Your task to perform on an android device: add a contact in the contacts app Image 0: 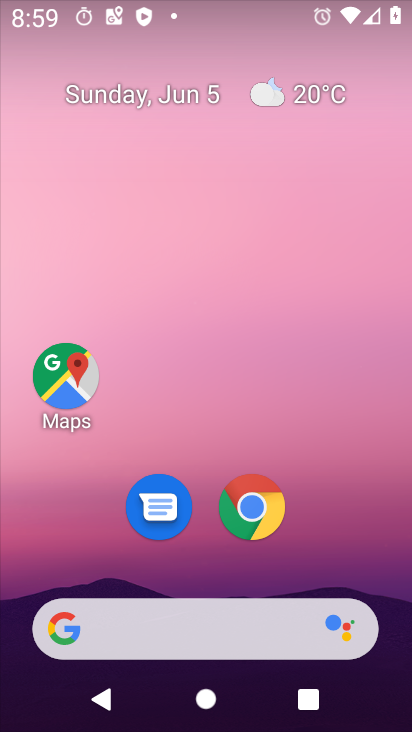
Step 0: drag from (383, 528) to (250, 12)
Your task to perform on an android device: add a contact in the contacts app Image 1: 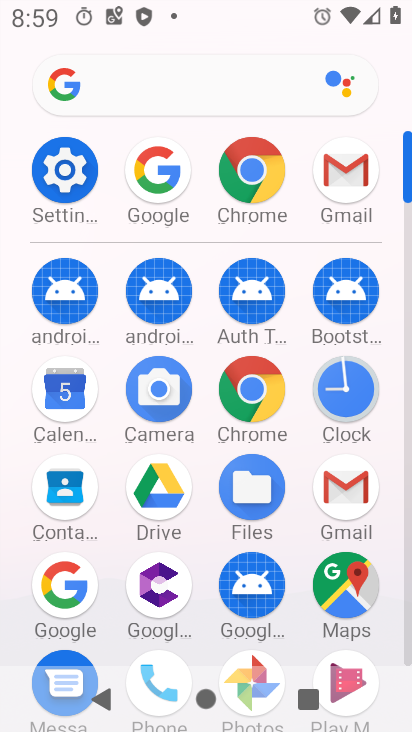
Step 1: click (61, 484)
Your task to perform on an android device: add a contact in the contacts app Image 2: 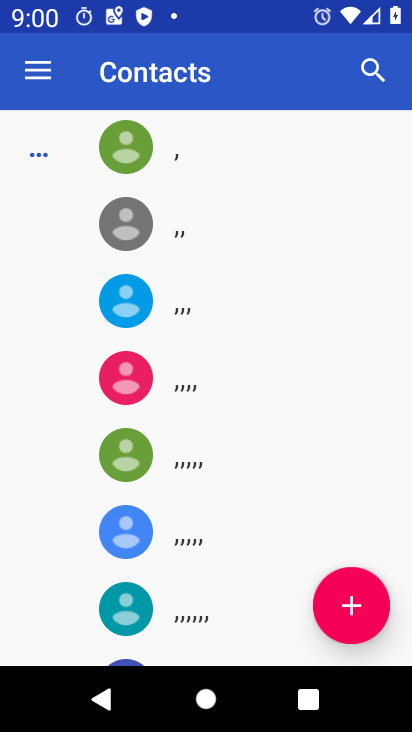
Step 2: click (342, 606)
Your task to perform on an android device: add a contact in the contacts app Image 3: 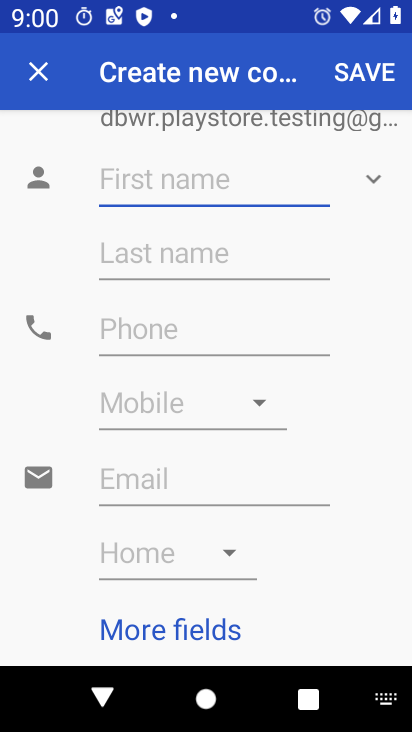
Step 3: type "sdvb"
Your task to perform on an android device: add a contact in the contacts app Image 4: 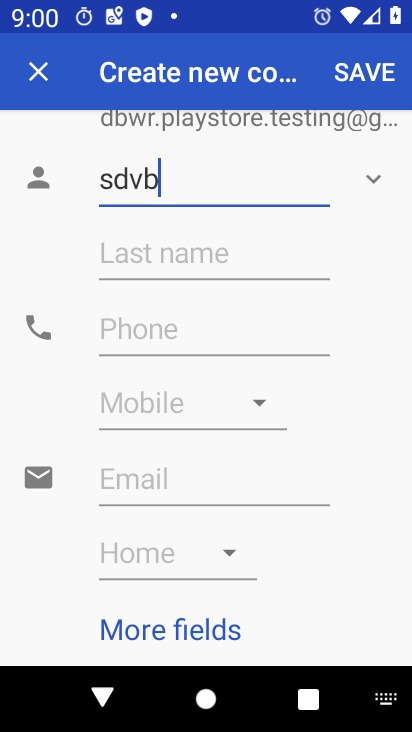
Step 4: type ""
Your task to perform on an android device: add a contact in the contacts app Image 5: 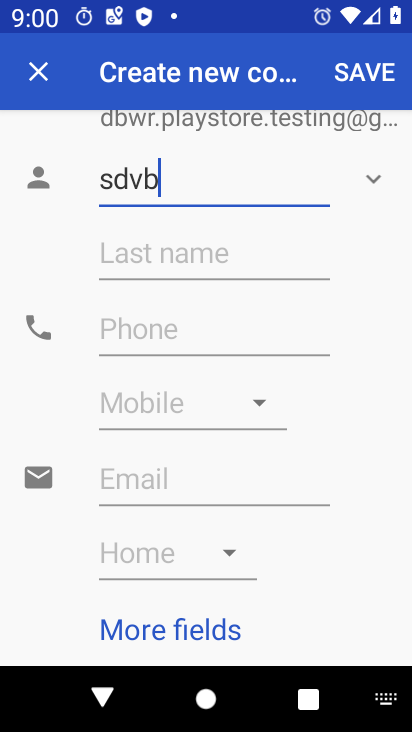
Step 5: click (223, 335)
Your task to perform on an android device: add a contact in the contacts app Image 6: 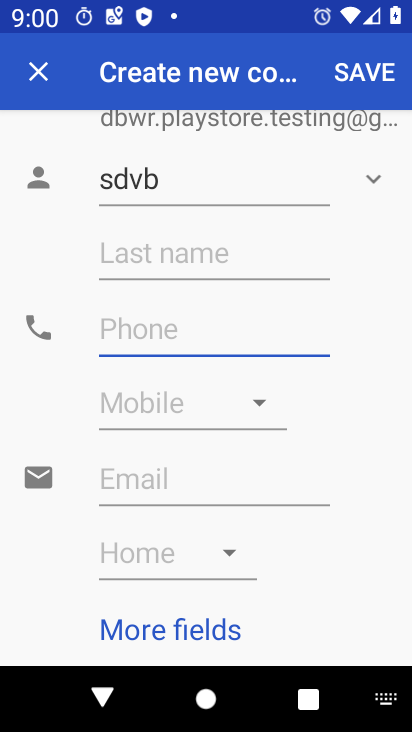
Step 6: type "234567"
Your task to perform on an android device: add a contact in the contacts app Image 7: 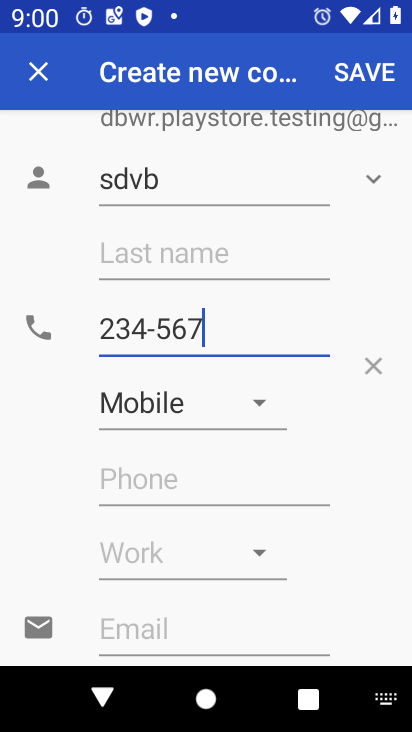
Step 7: type ""
Your task to perform on an android device: add a contact in the contacts app Image 8: 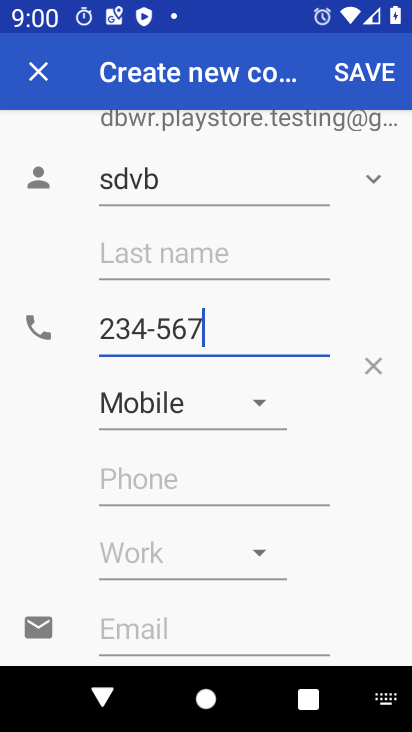
Step 8: click (365, 67)
Your task to perform on an android device: add a contact in the contacts app Image 9: 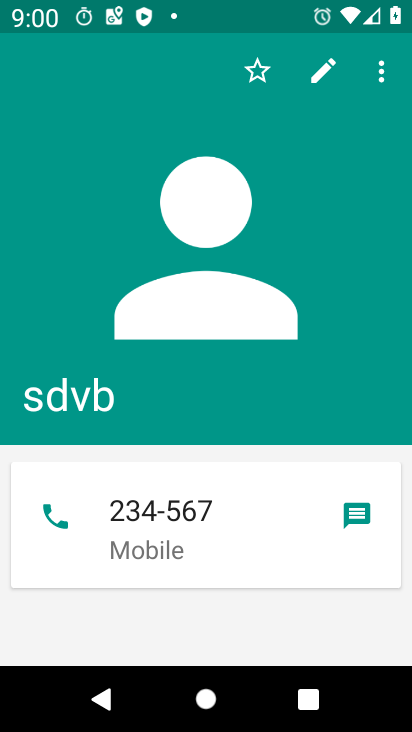
Step 9: task complete